Your task to perform on an android device: Turn on the flashlight Image 0: 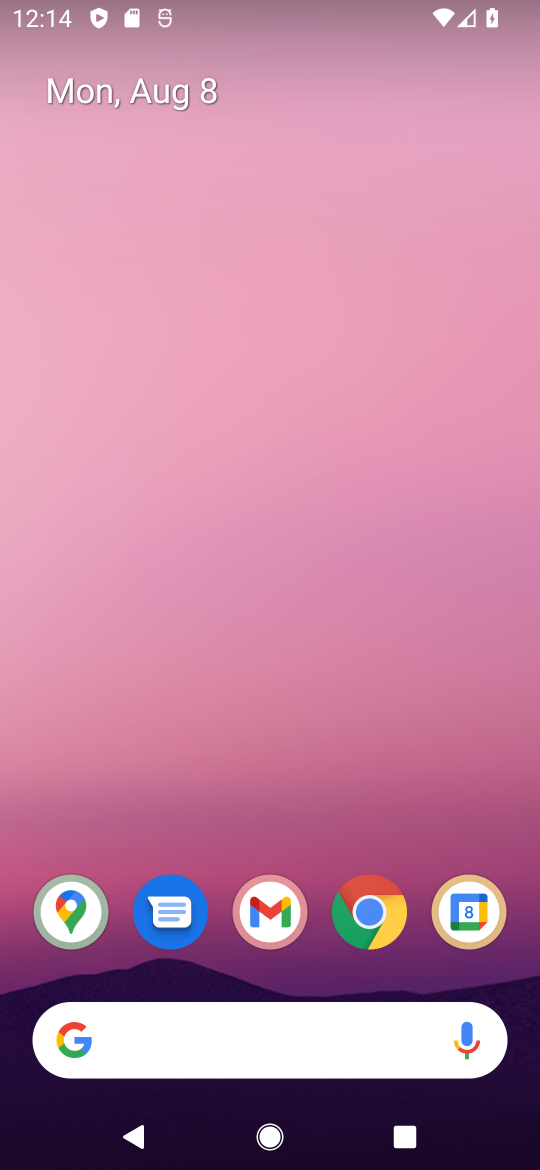
Step 0: drag from (269, 886) to (367, 68)
Your task to perform on an android device: Turn on the flashlight Image 1: 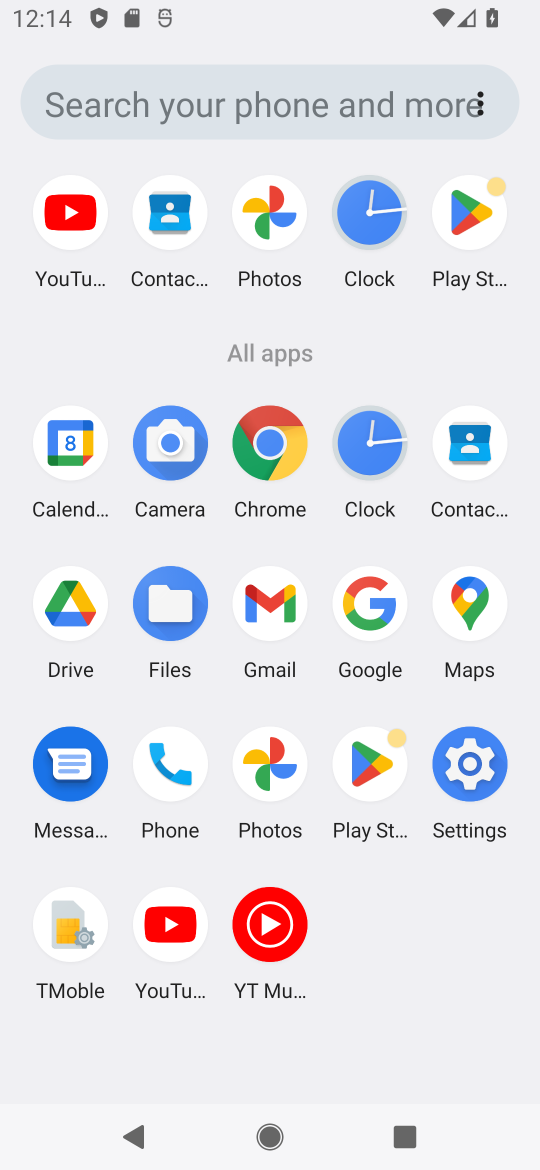
Step 1: click (461, 770)
Your task to perform on an android device: Turn on the flashlight Image 2: 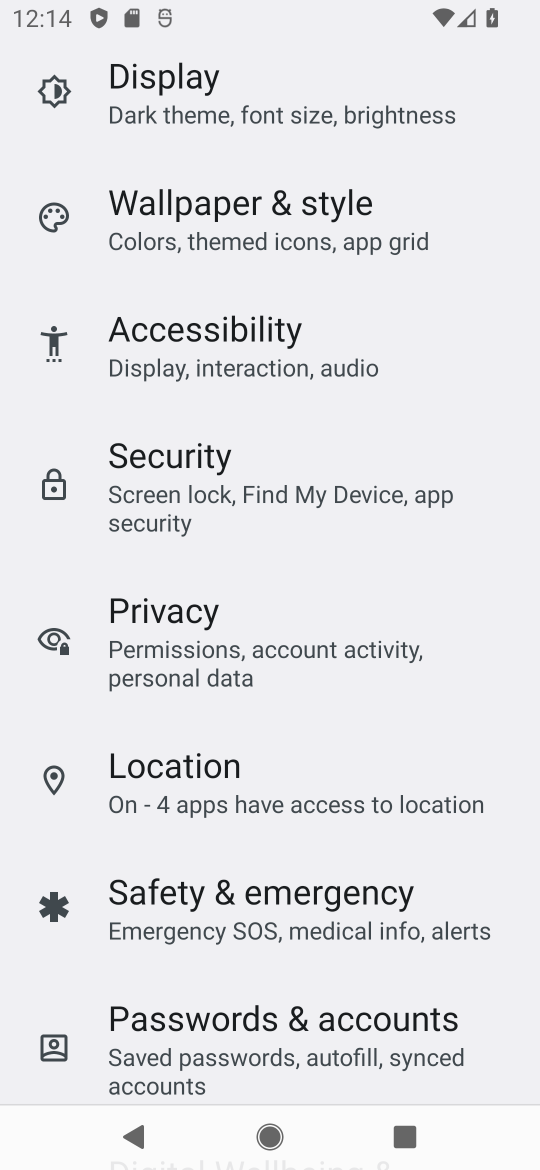
Step 2: drag from (280, 192) to (191, 1168)
Your task to perform on an android device: Turn on the flashlight Image 3: 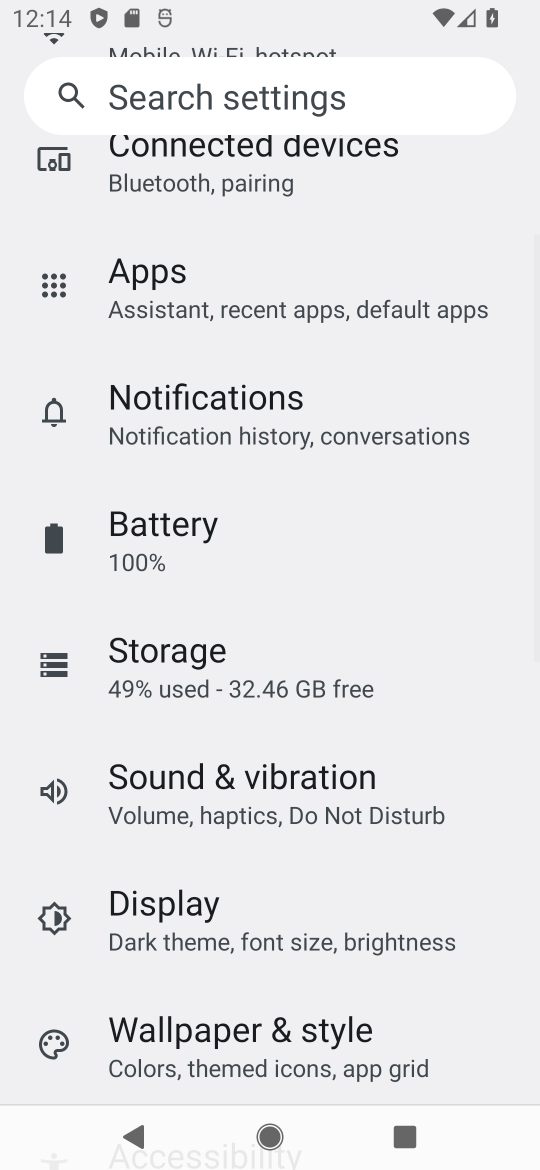
Step 3: click (203, 93)
Your task to perform on an android device: Turn on the flashlight Image 4: 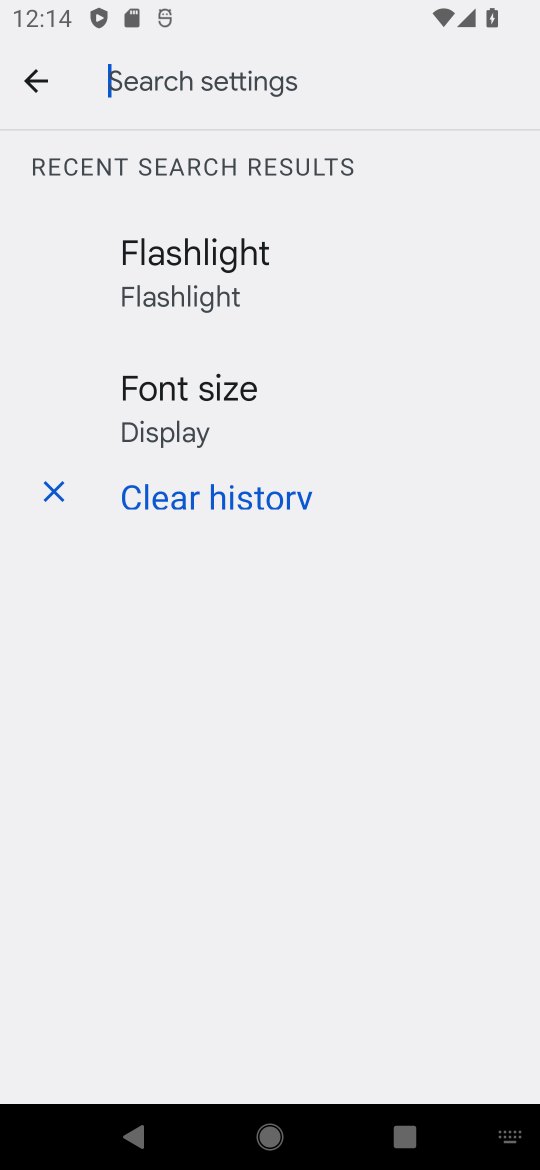
Step 4: type "flashlight"
Your task to perform on an android device: Turn on the flashlight Image 5: 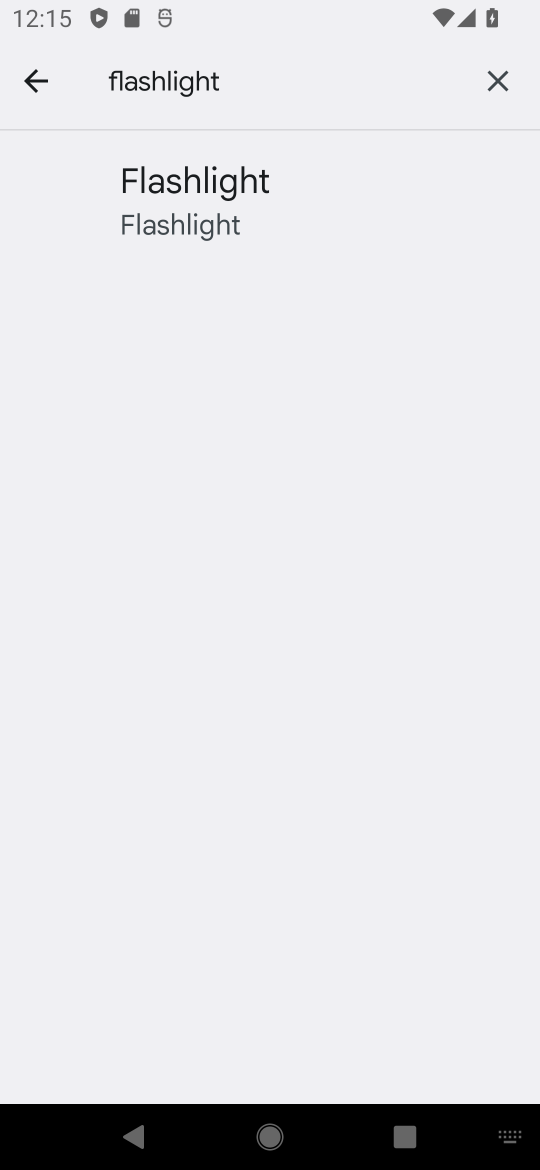
Step 5: click (192, 196)
Your task to perform on an android device: Turn on the flashlight Image 6: 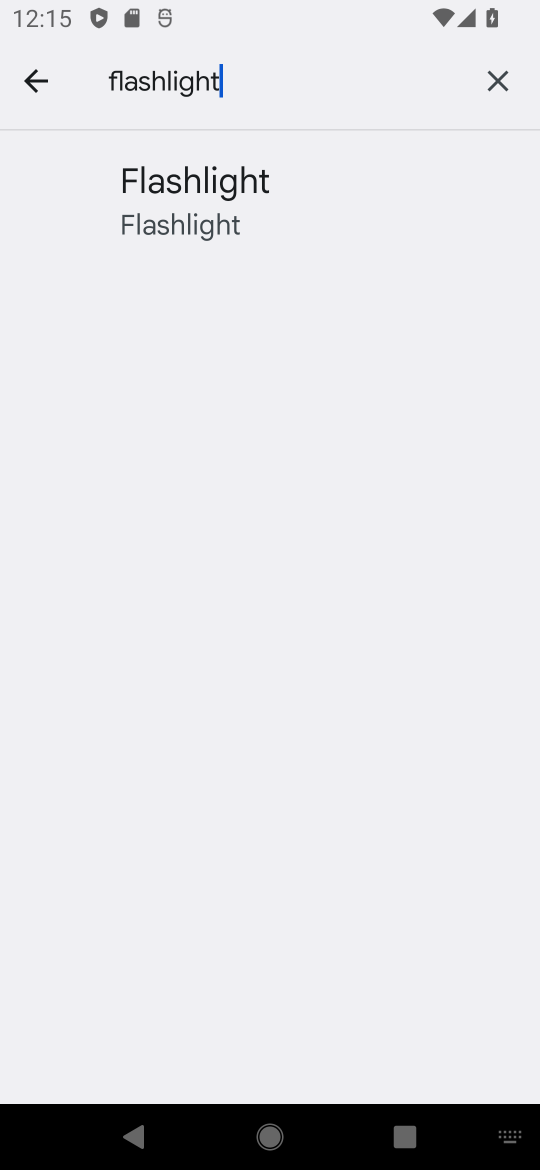
Step 6: task complete